Your task to perform on an android device: open a bookmark in the chrome app Image 0: 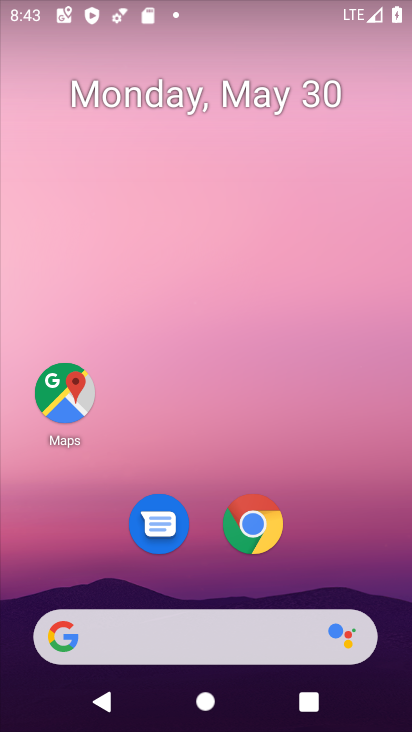
Step 0: click (250, 525)
Your task to perform on an android device: open a bookmark in the chrome app Image 1: 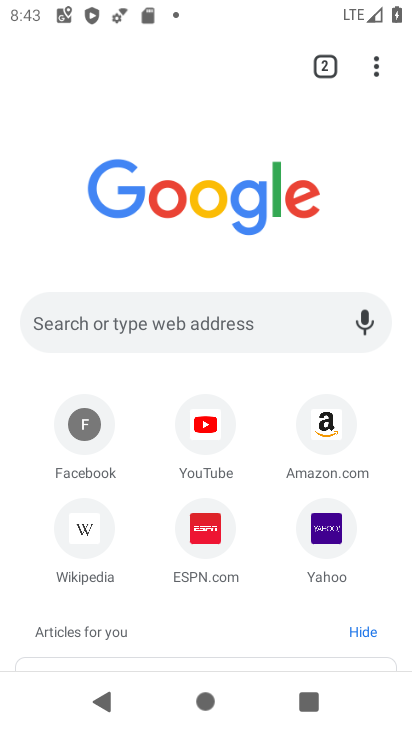
Step 1: click (374, 72)
Your task to perform on an android device: open a bookmark in the chrome app Image 2: 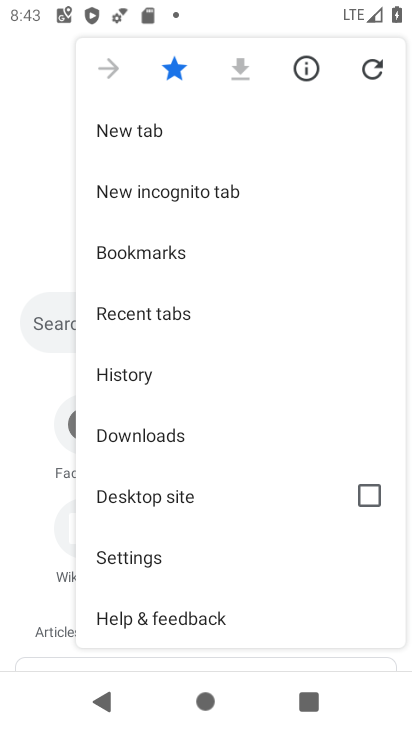
Step 2: click (281, 137)
Your task to perform on an android device: open a bookmark in the chrome app Image 3: 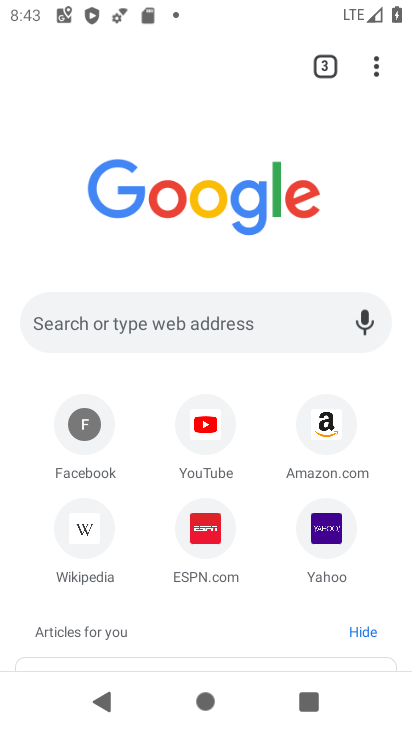
Step 3: task complete